Your task to perform on an android device: turn off airplane mode Image 0: 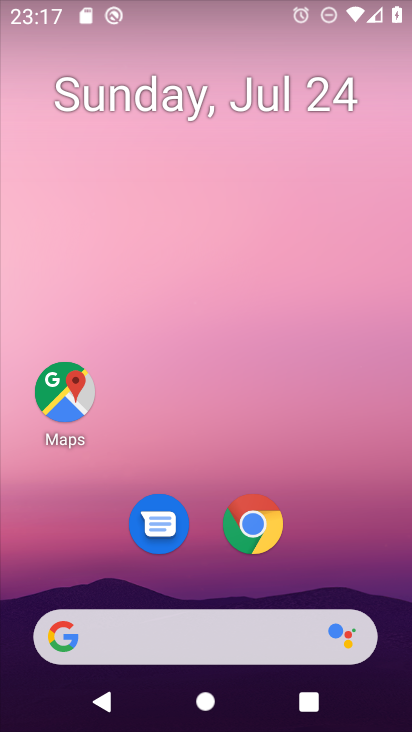
Step 0: press home button
Your task to perform on an android device: turn off airplane mode Image 1: 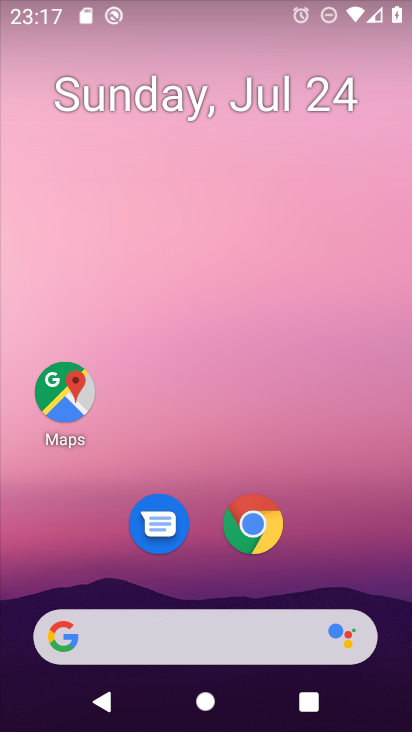
Step 1: drag from (195, 626) to (281, 7)
Your task to perform on an android device: turn off airplane mode Image 2: 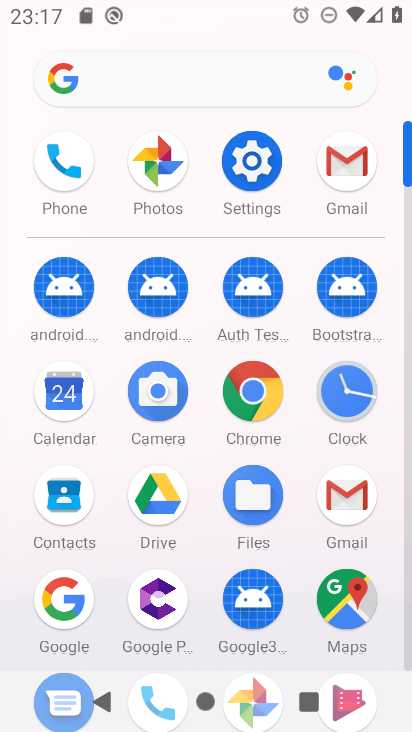
Step 2: click (249, 156)
Your task to perform on an android device: turn off airplane mode Image 3: 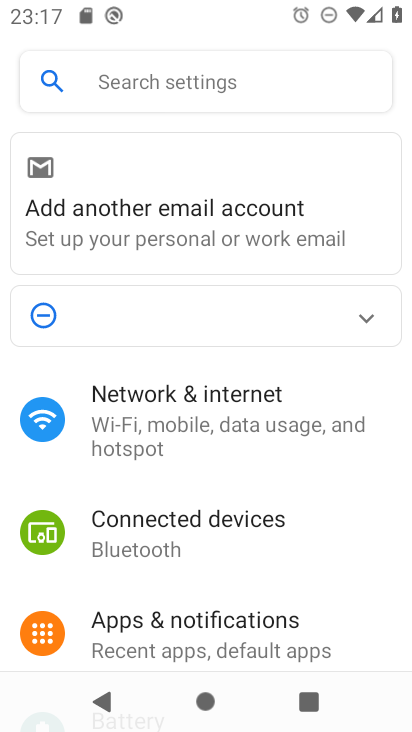
Step 3: click (233, 411)
Your task to perform on an android device: turn off airplane mode Image 4: 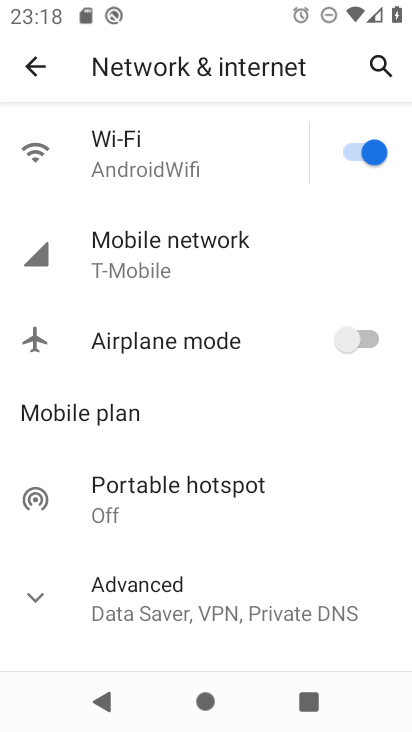
Step 4: task complete